Your task to perform on an android device: delete browsing data in the chrome app Image 0: 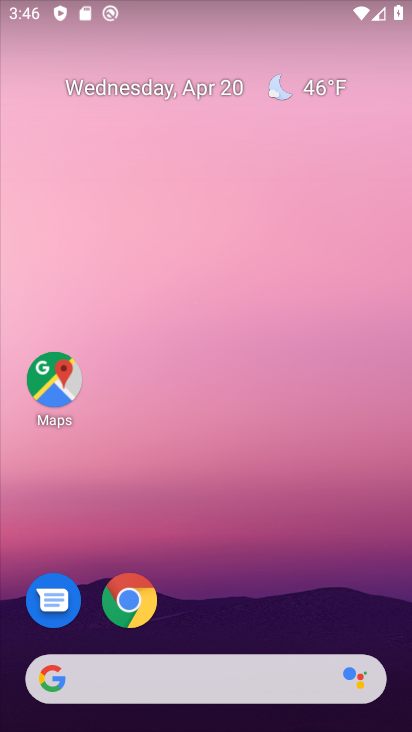
Step 0: click (142, 594)
Your task to perform on an android device: delete browsing data in the chrome app Image 1: 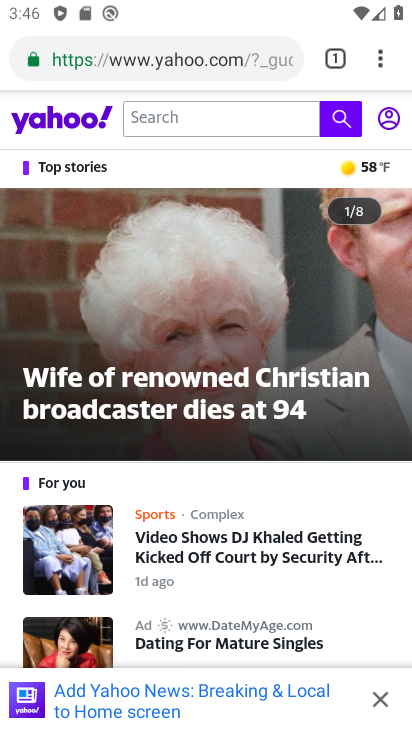
Step 1: click (377, 53)
Your task to perform on an android device: delete browsing data in the chrome app Image 2: 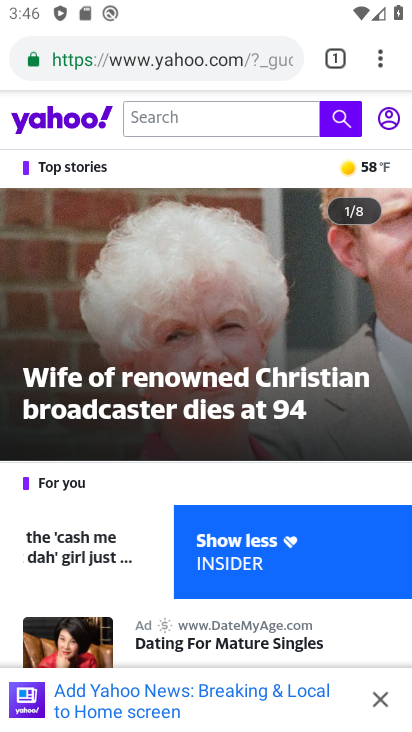
Step 2: click (381, 58)
Your task to perform on an android device: delete browsing data in the chrome app Image 3: 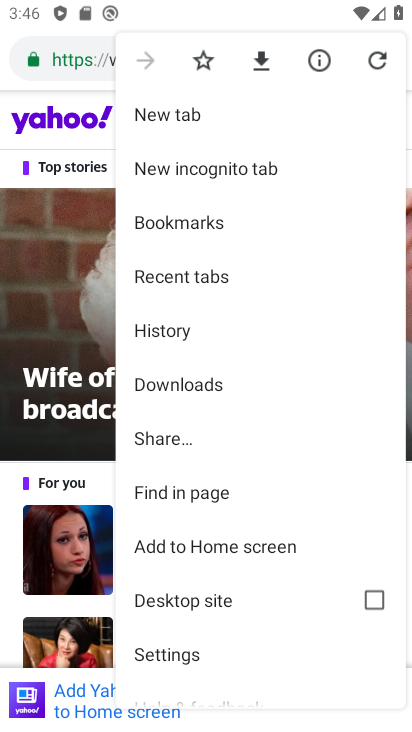
Step 3: click (174, 324)
Your task to perform on an android device: delete browsing data in the chrome app Image 4: 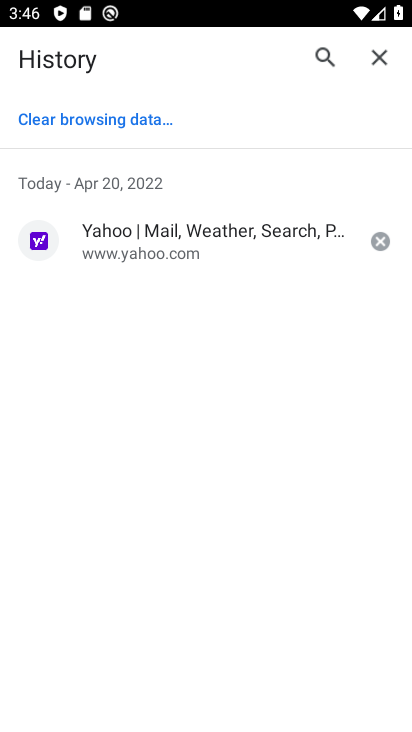
Step 4: click (122, 122)
Your task to perform on an android device: delete browsing data in the chrome app Image 5: 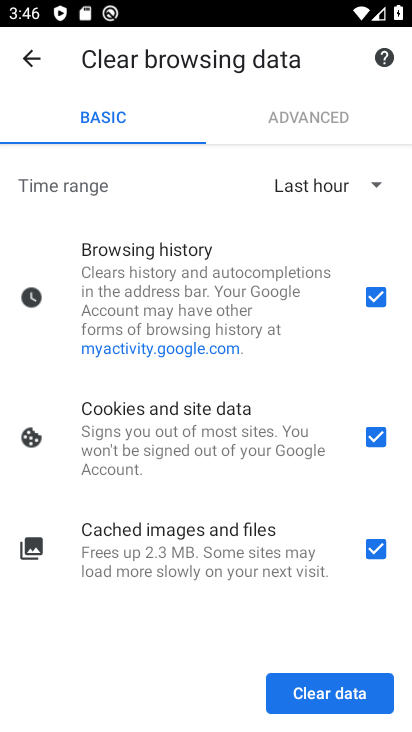
Step 5: click (333, 683)
Your task to perform on an android device: delete browsing data in the chrome app Image 6: 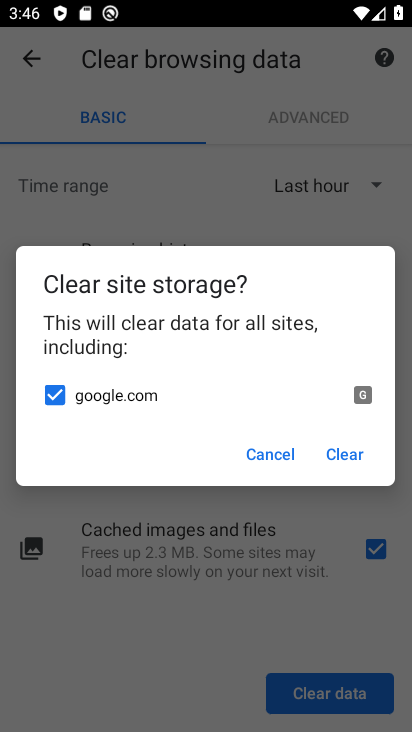
Step 6: click (345, 456)
Your task to perform on an android device: delete browsing data in the chrome app Image 7: 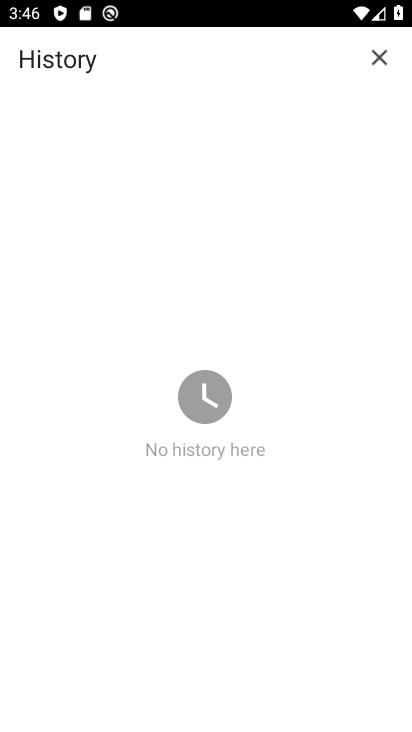
Step 7: task complete